Your task to perform on an android device: toggle location history Image 0: 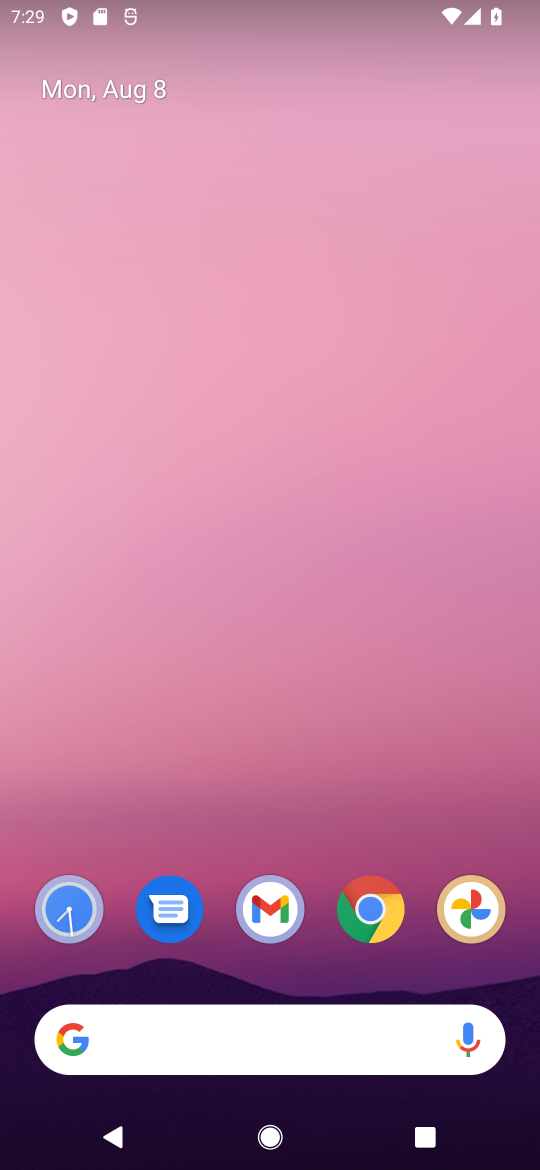
Step 0: press home button
Your task to perform on an android device: toggle location history Image 1: 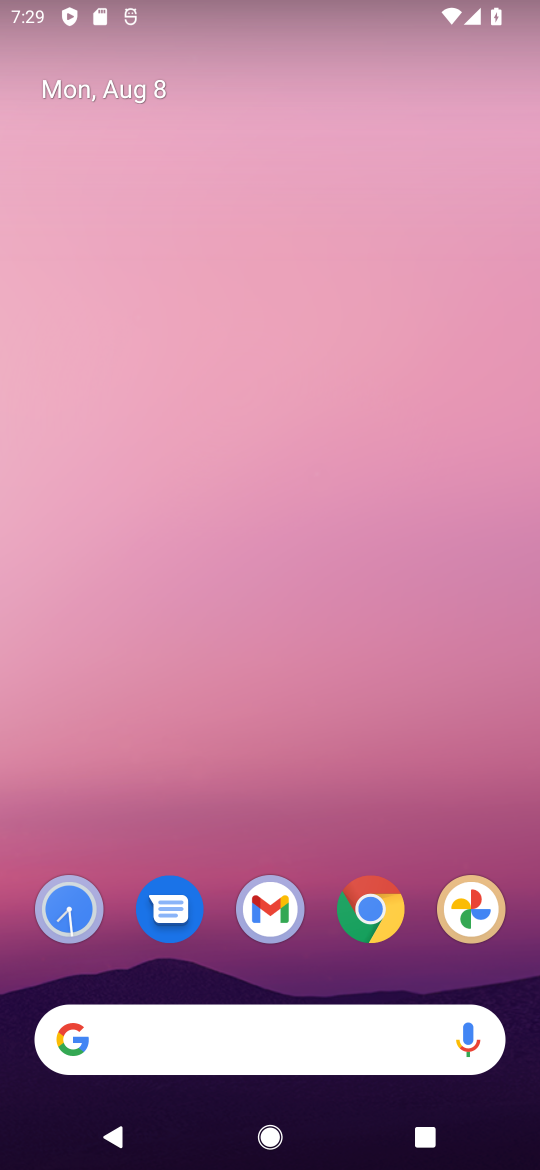
Step 1: drag from (259, 364) to (275, 231)
Your task to perform on an android device: toggle location history Image 2: 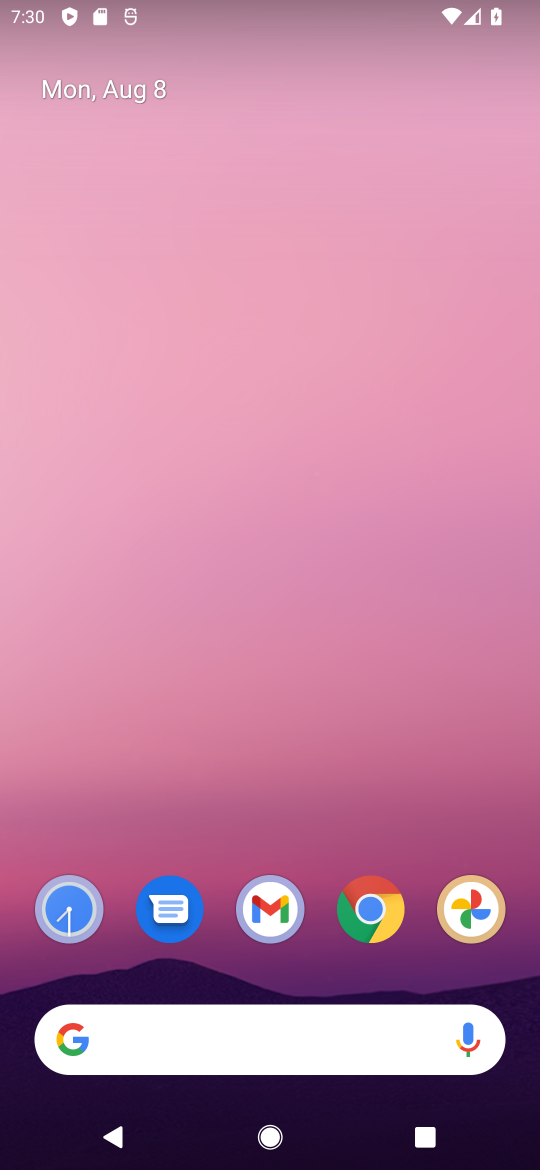
Step 2: drag from (349, 1005) to (322, 226)
Your task to perform on an android device: toggle location history Image 3: 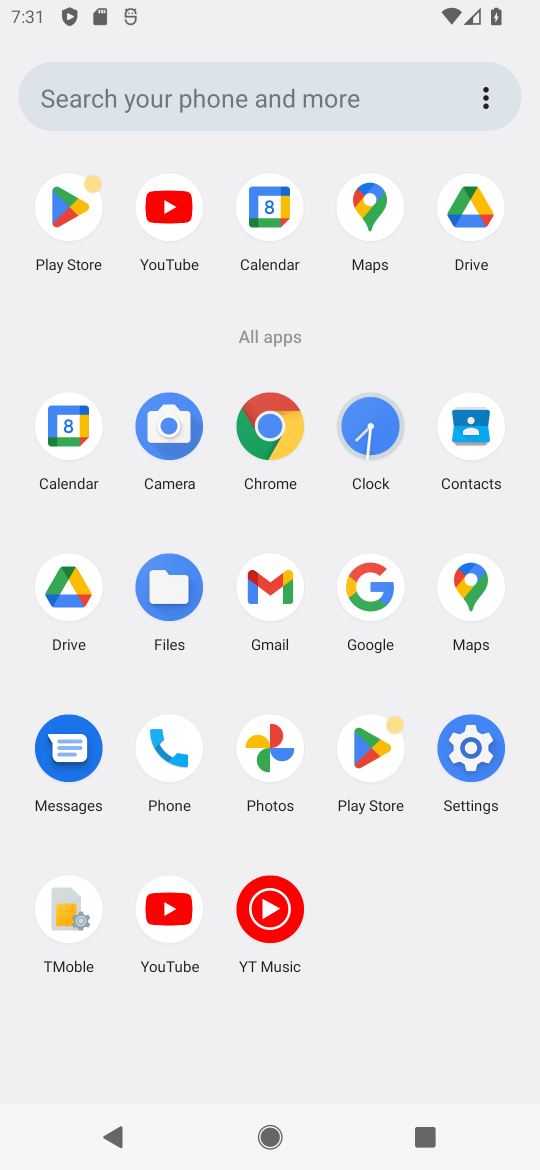
Step 3: click (479, 764)
Your task to perform on an android device: toggle location history Image 4: 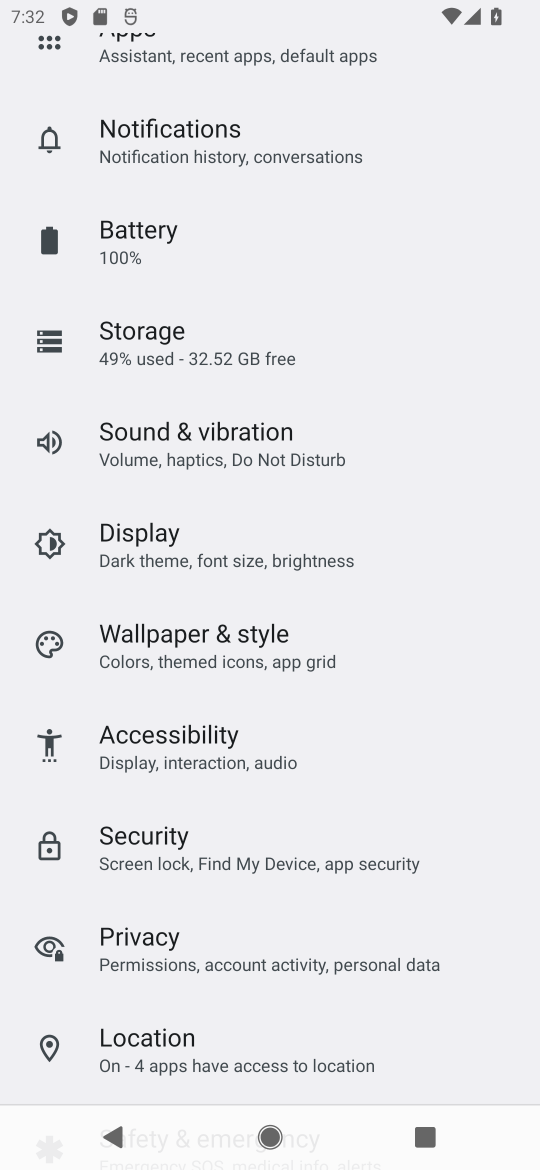
Step 4: click (179, 1052)
Your task to perform on an android device: toggle location history Image 5: 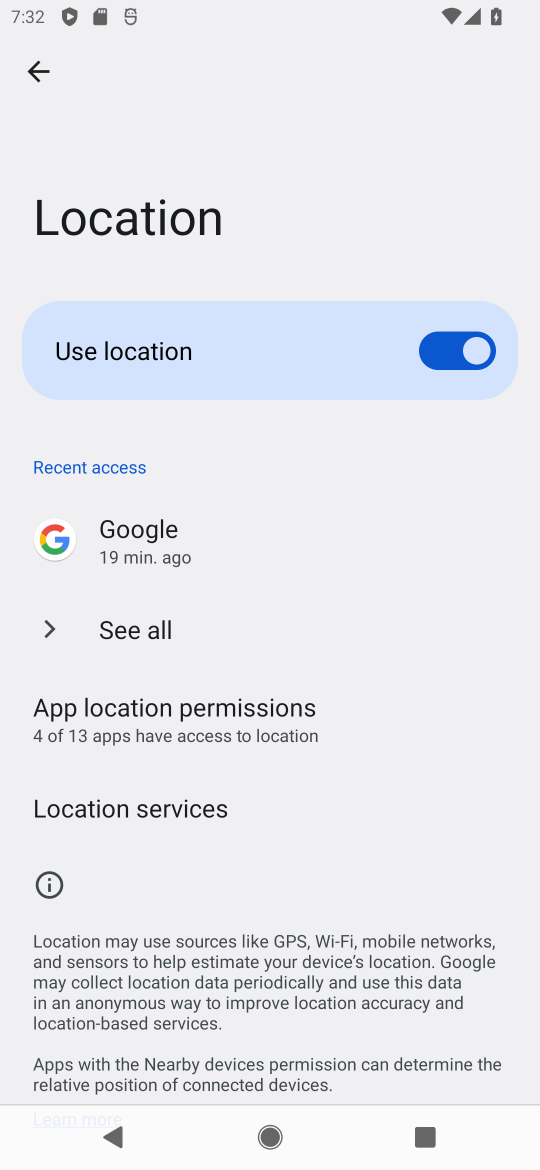
Step 5: click (172, 827)
Your task to perform on an android device: toggle location history Image 6: 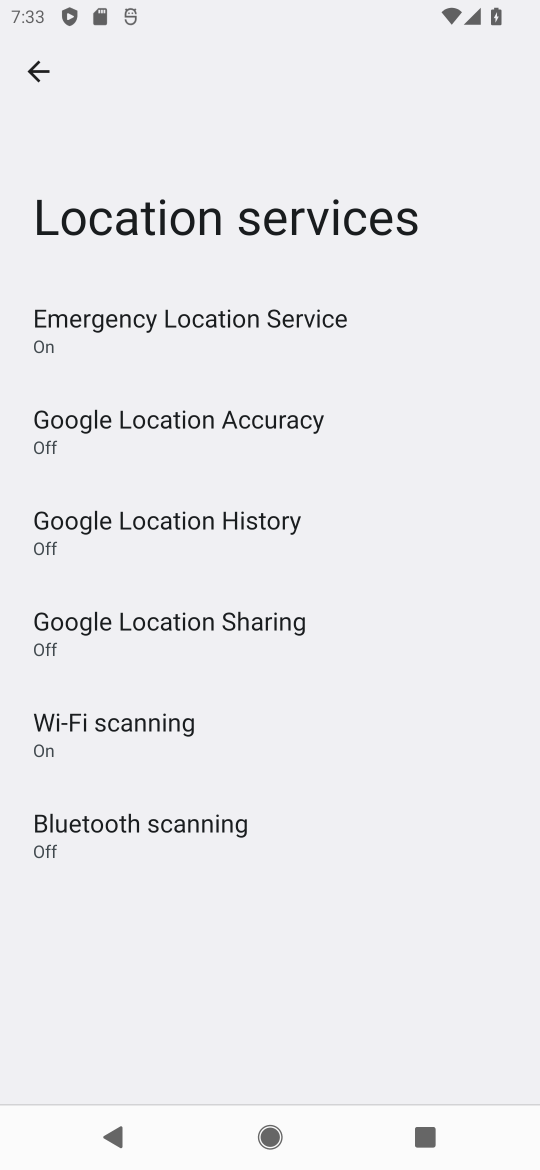
Step 6: click (249, 513)
Your task to perform on an android device: toggle location history Image 7: 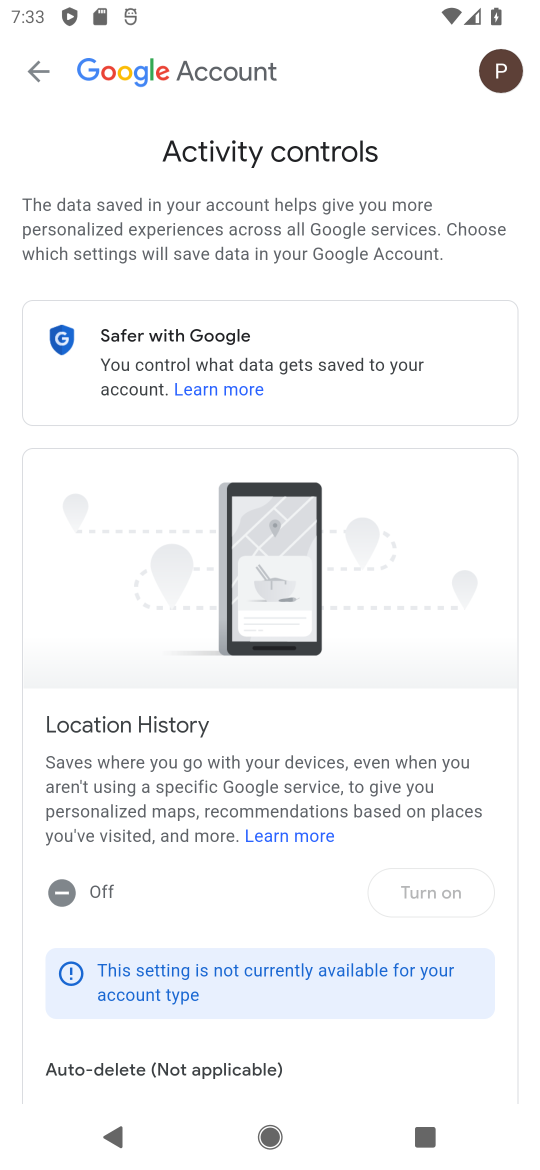
Step 7: task complete